Your task to perform on an android device: See recent photos Image 0: 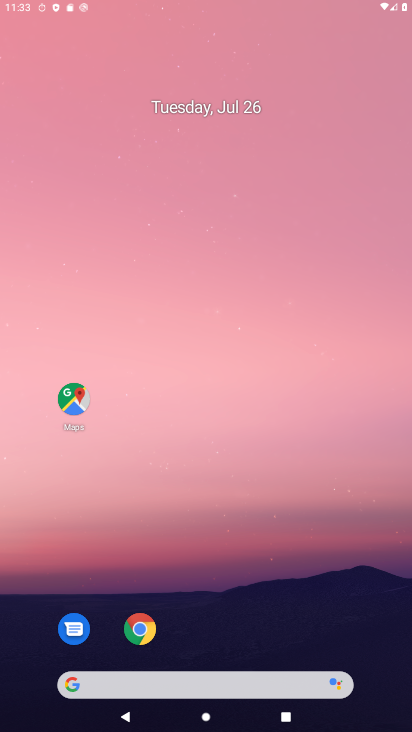
Step 0: drag from (343, 616) to (154, 7)
Your task to perform on an android device: See recent photos Image 1: 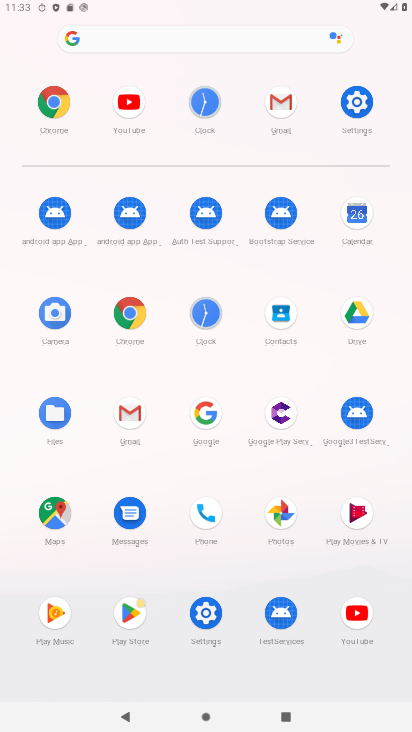
Step 1: click (286, 517)
Your task to perform on an android device: See recent photos Image 2: 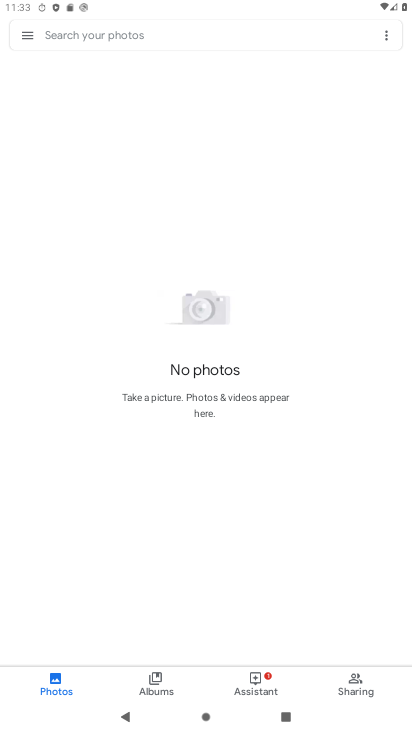
Step 2: task complete